Your task to perform on an android device: see tabs open on other devices in the chrome app Image 0: 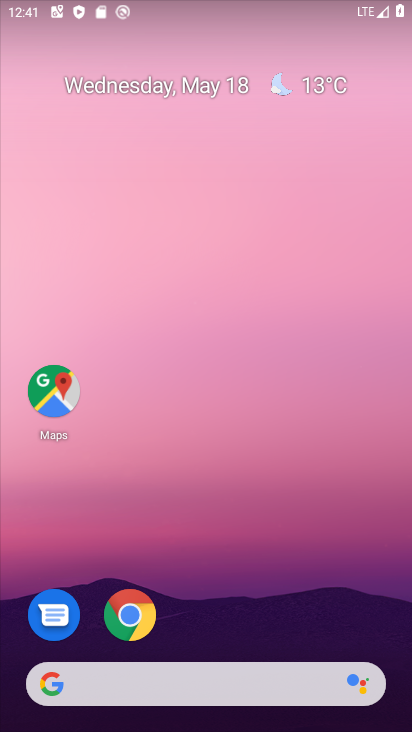
Step 0: click (129, 622)
Your task to perform on an android device: see tabs open on other devices in the chrome app Image 1: 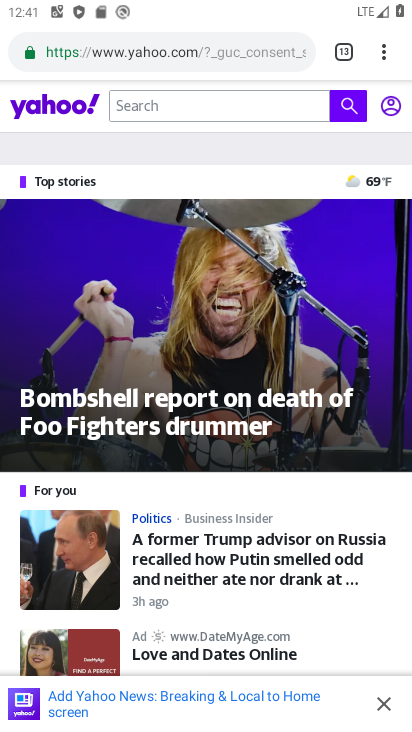
Step 1: task complete